Your task to perform on an android device: Do I have any events this weekend? Image 0: 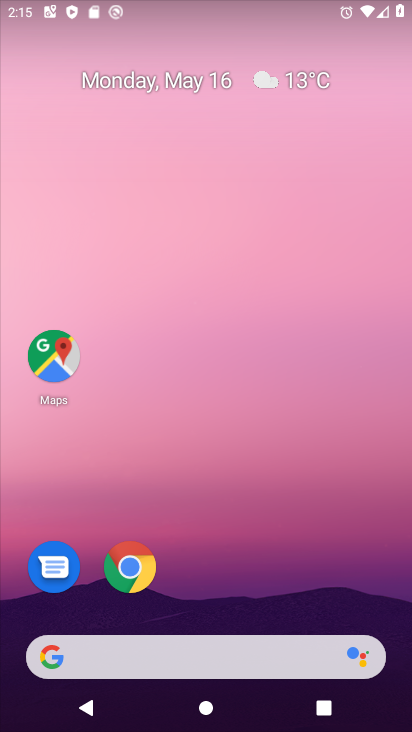
Step 0: press home button
Your task to perform on an android device: Do I have any events this weekend? Image 1: 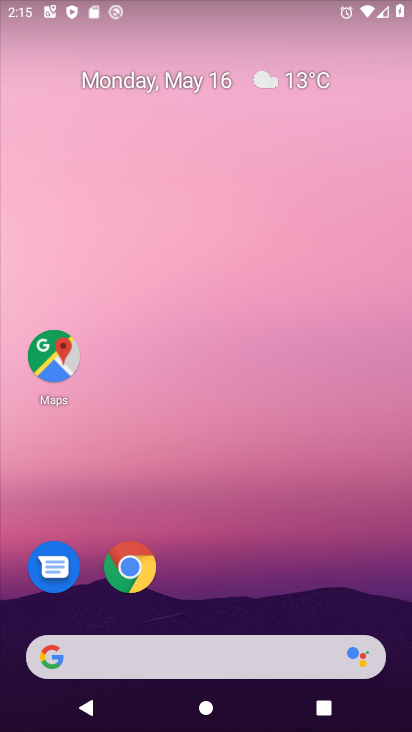
Step 1: drag from (260, 555) to (196, 16)
Your task to perform on an android device: Do I have any events this weekend? Image 2: 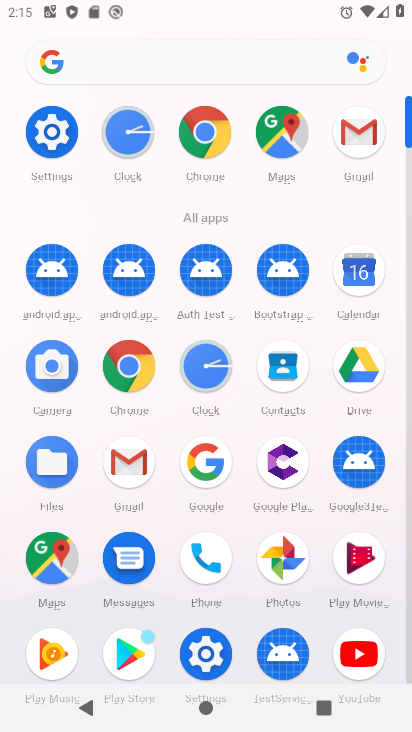
Step 2: click (359, 286)
Your task to perform on an android device: Do I have any events this weekend? Image 3: 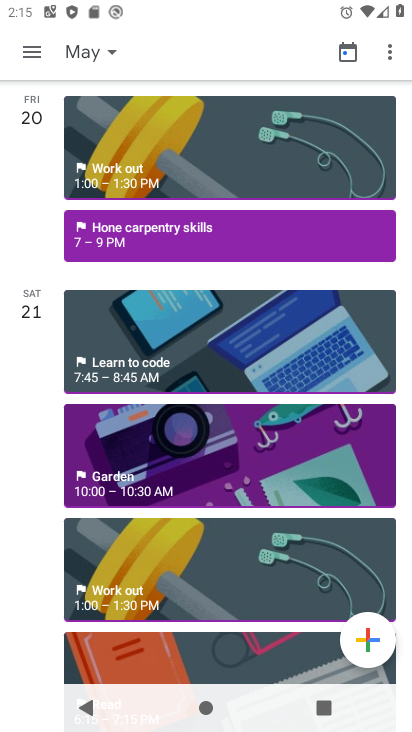
Step 3: click (111, 57)
Your task to perform on an android device: Do I have any events this weekend? Image 4: 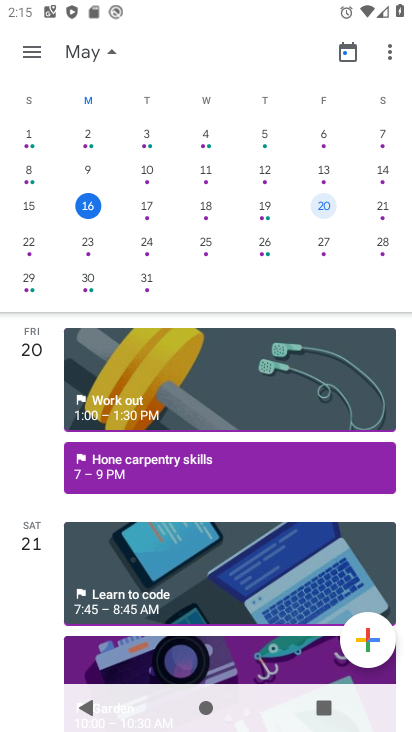
Step 4: click (316, 198)
Your task to perform on an android device: Do I have any events this weekend? Image 5: 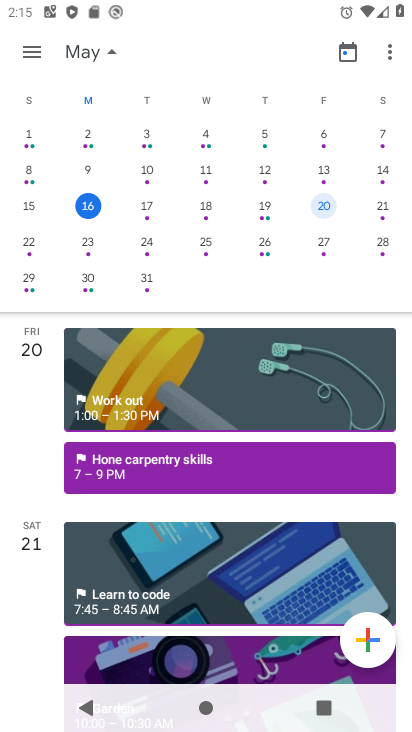
Step 5: click (115, 63)
Your task to perform on an android device: Do I have any events this weekend? Image 6: 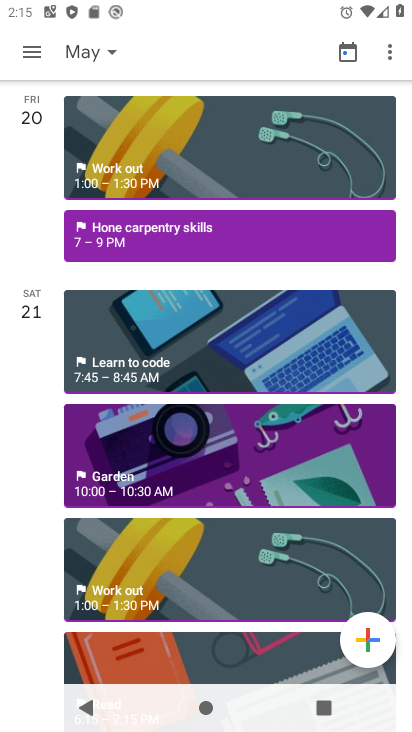
Step 6: task complete